Your task to perform on an android device: change the clock style Image 0: 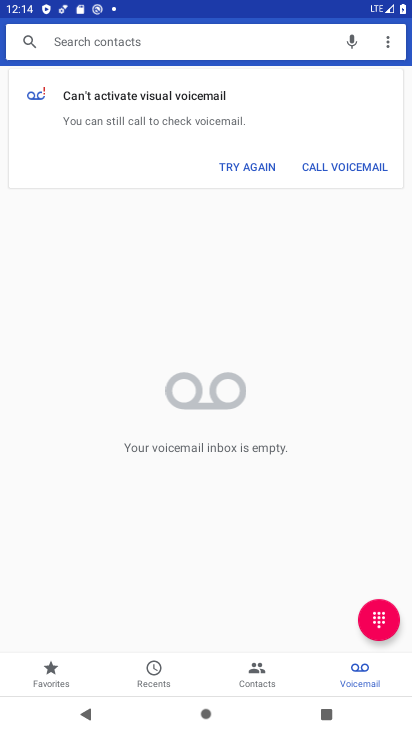
Step 0: press home button
Your task to perform on an android device: change the clock style Image 1: 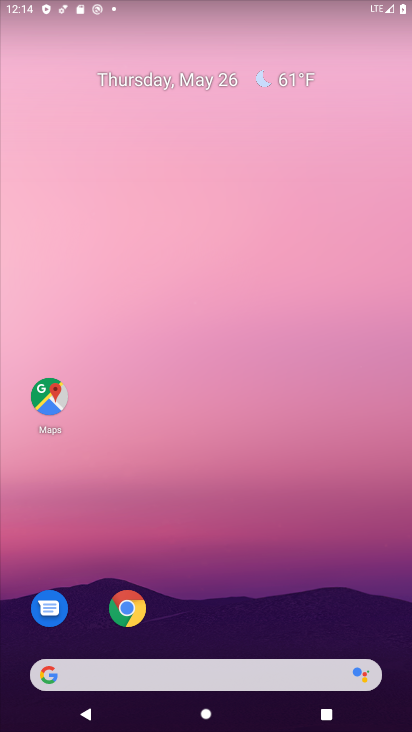
Step 1: drag from (364, 623) to (288, 36)
Your task to perform on an android device: change the clock style Image 2: 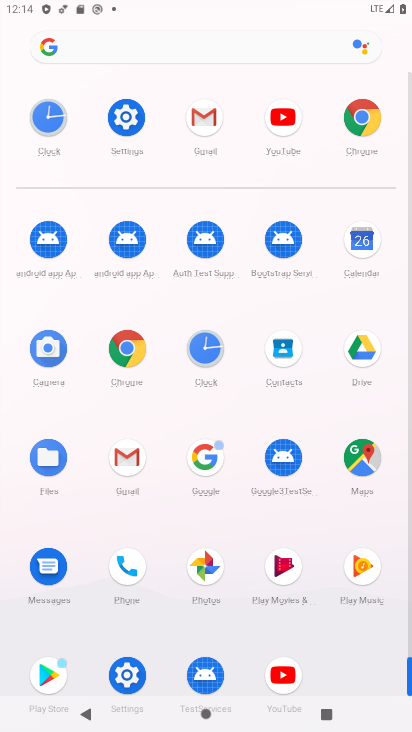
Step 2: click (205, 351)
Your task to perform on an android device: change the clock style Image 3: 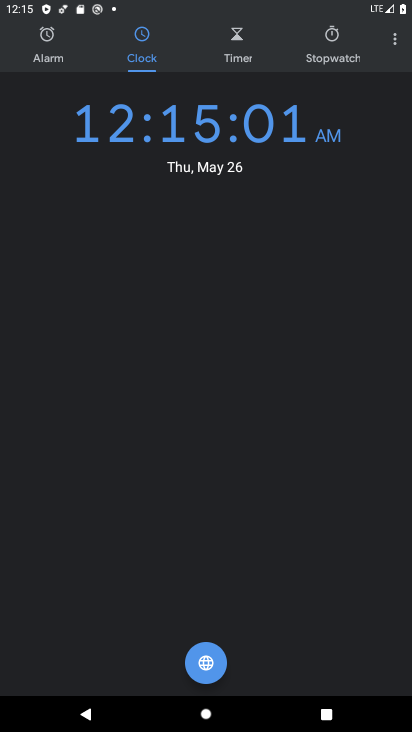
Step 3: click (392, 40)
Your task to perform on an android device: change the clock style Image 4: 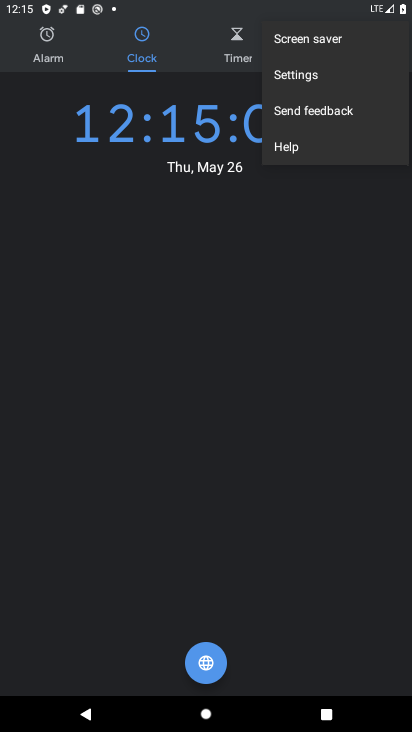
Step 4: click (281, 81)
Your task to perform on an android device: change the clock style Image 5: 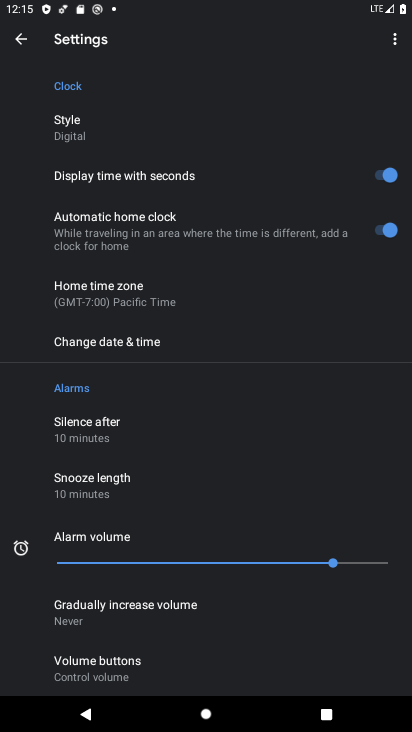
Step 5: click (71, 122)
Your task to perform on an android device: change the clock style Image 6: 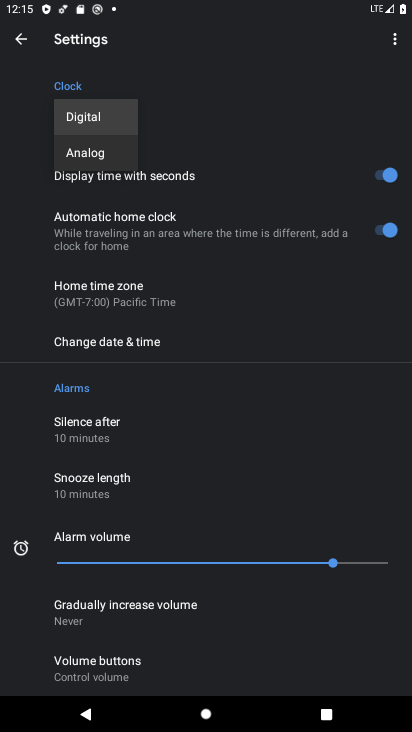
Step 6: click (83, 157)
Your task to perform on an android device: change the clock style Image 7: 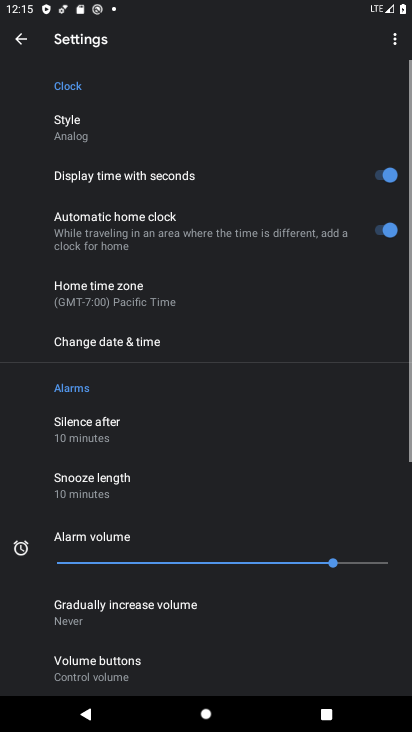
Step 7: task complete